Your task to perform on an android device: toggle airplane mode Image 0: 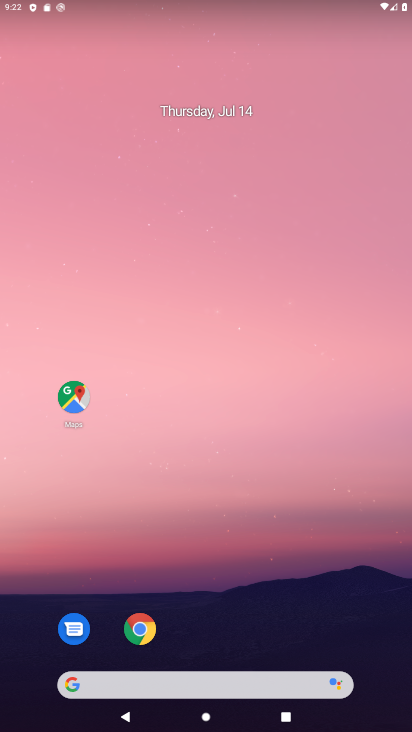
Step 0: drag from (228, 641) to (237, 172)
Your task to perform on an android device: toggle airplane mode Image 1: 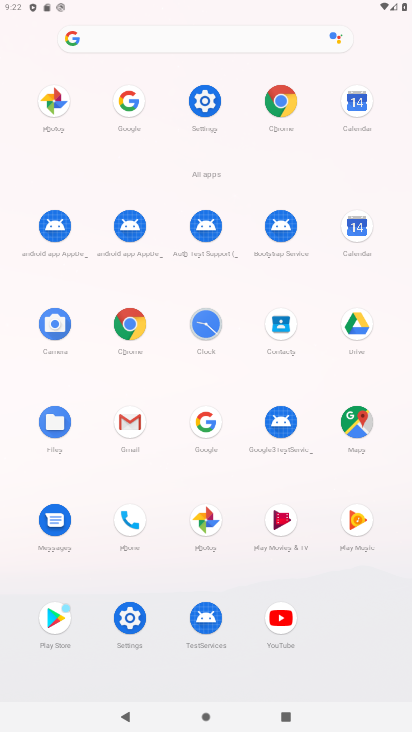
Step 1: click (201, 107)
Your task to perform on an android device: toggle airplane mode Image 2: 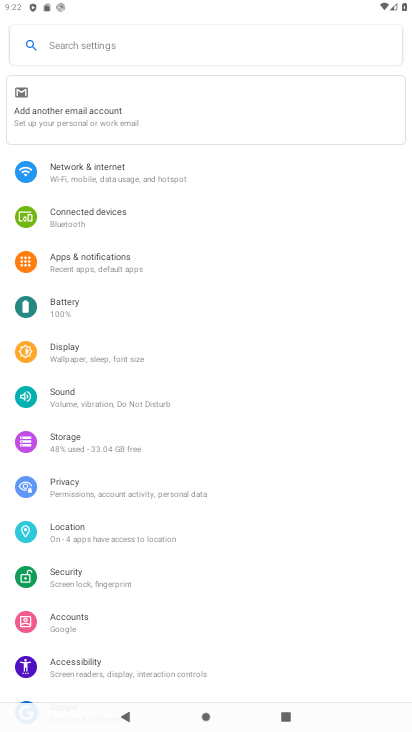
Step 2: click (113, 173)
Your task to perform on an android device: toggle airplane mode Image 3: 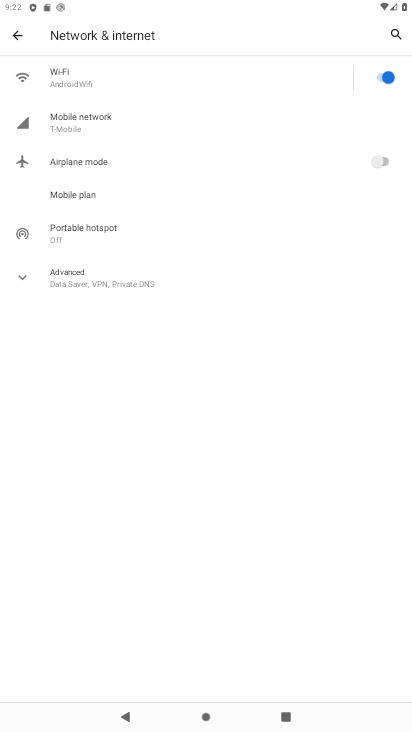
Step 3: click (379, 162)
Your task to perform on an android device: toggle airplane mode Image 4: 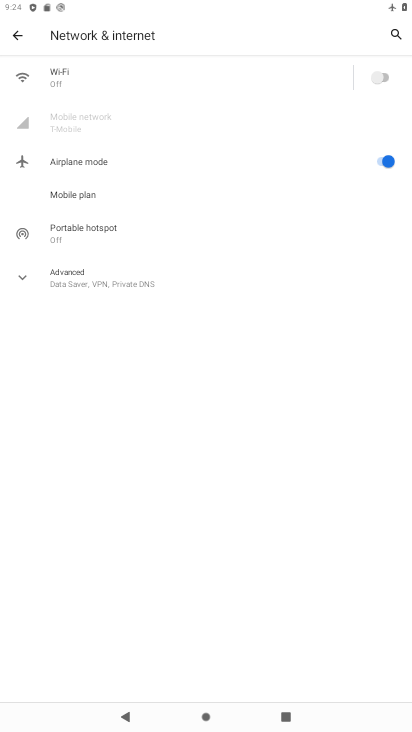
Step 4: task complete